Your task to perform on an android device: toggle wifi Image 0: 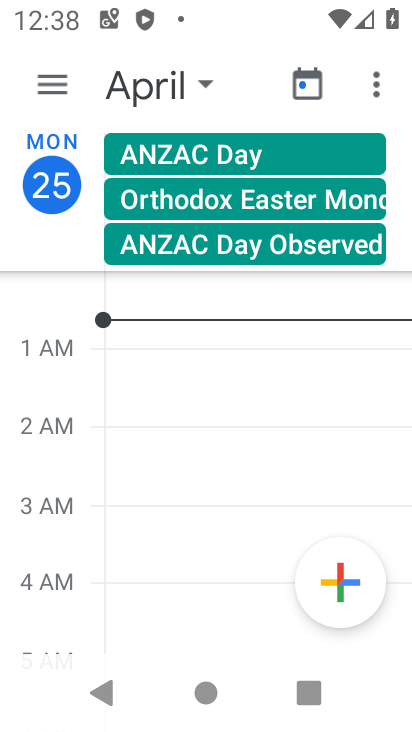
Step 0: press home button
Your task to perform on an android device: toggle wifi Image 1: 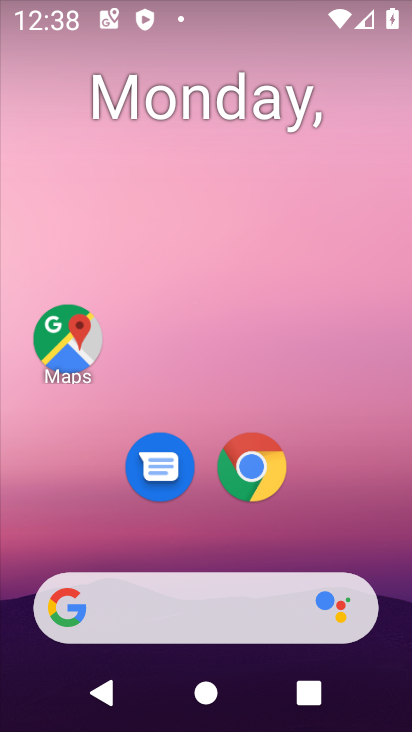
Step 1: drag from (376, 531) to (307, 136)
Your task to perform on an android device: toggle wifi Image 2: 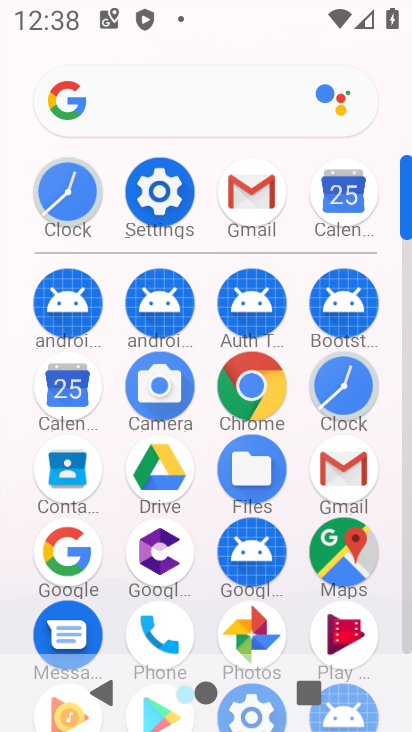
Step 2: click (402, 628)
Your task to perform on an android device: toggle wifi Image 3: 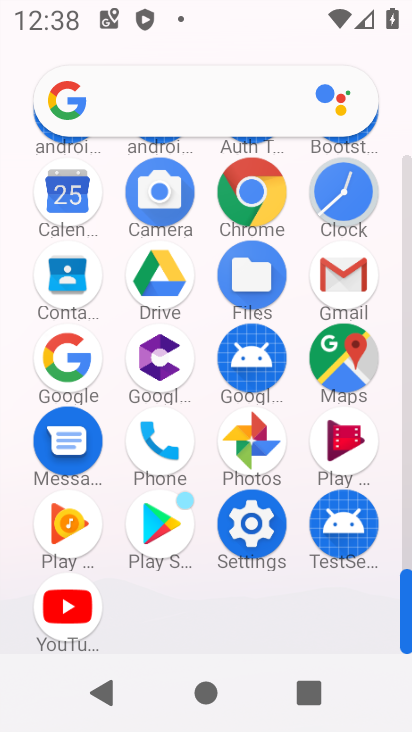
Step 3: click (249, 522)
Your task to perform on an android device: toggle wifi Image 4: 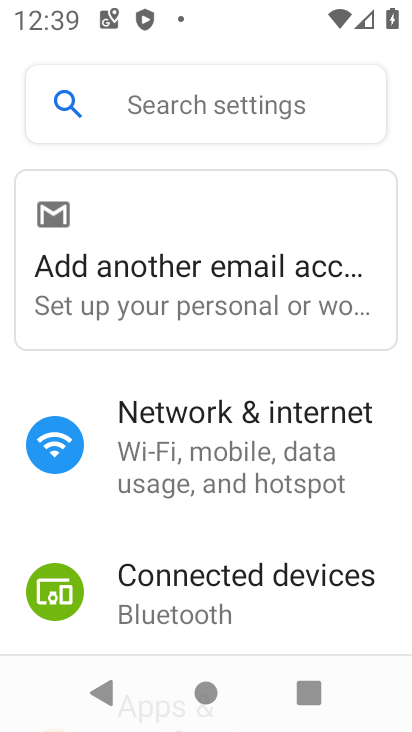
Step 4: click (182, 468)
Your task to perform on an android device: toggle wifi Image 5: 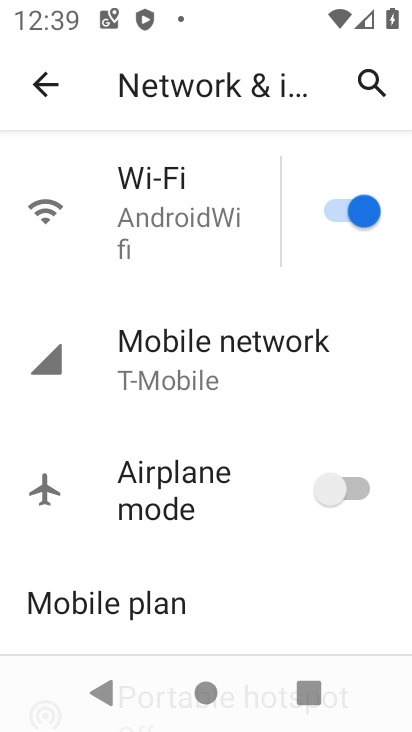
Step 5: click (149, 203)
Your task to perform on an android device: toggle wifi Image 6: 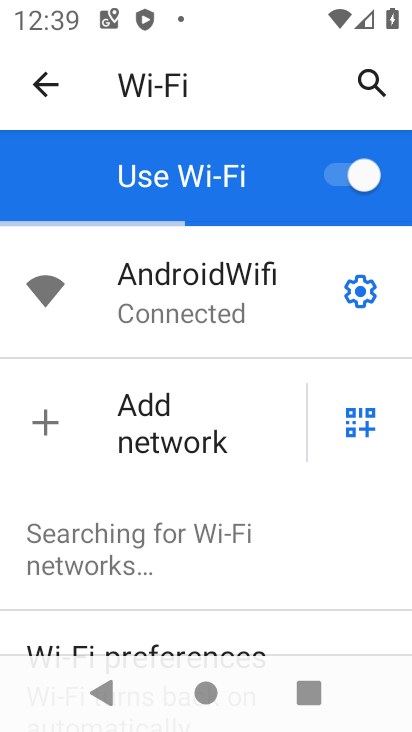
Step 6: task complete